Your task to perform on an android device: Search for vegetarian restaurants on Maps Image 0: 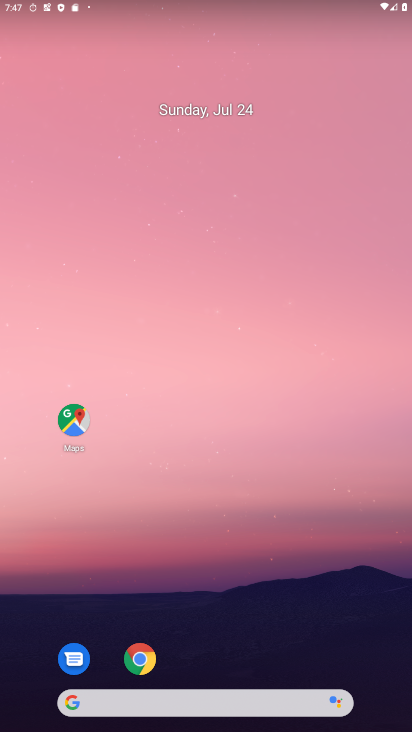
Step 0: drag from (315, 663) to (122, 92)
Your task to perform on an android device: Search for vegetarian restaurants on Maps Image 1: 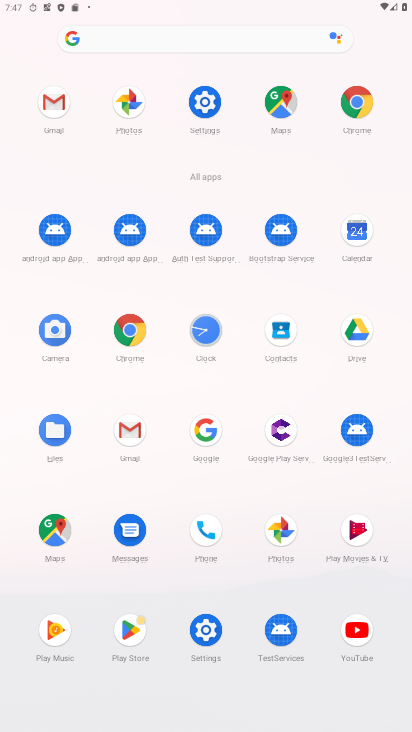
Step 1: click (272, 94)
Your task to perform on an android device: Search for vegetarian restaurants on Maps Image 2: 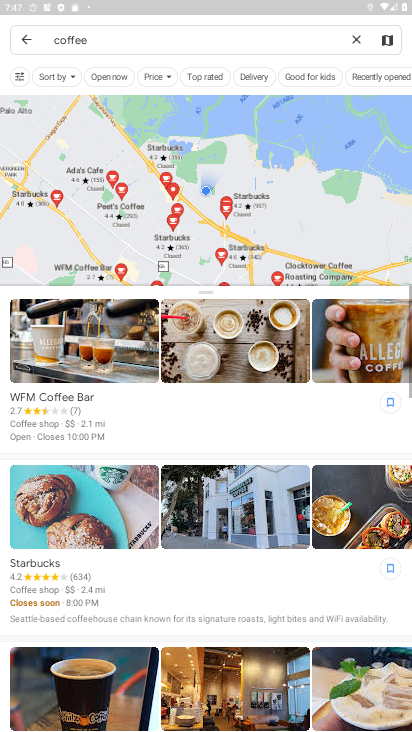
Step 2: click (354, 35)
Your task to perform on an android device: Search for vegetarian restaurants on Maps Image 3: 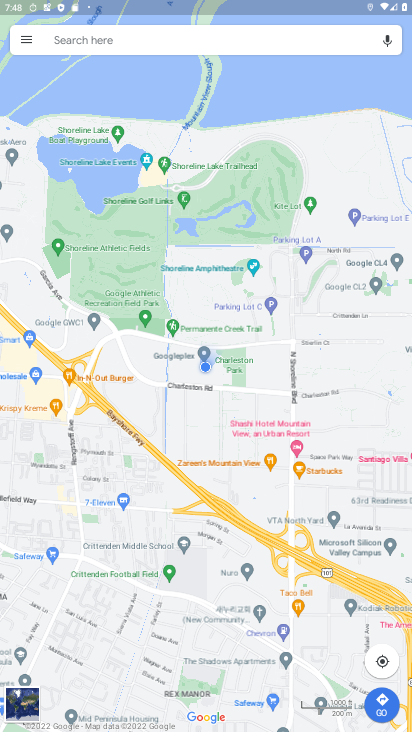
Step 3: click (288, 42)
Your task to perform on an android device: Search for vegetarian restaurants on Maps Image 4: 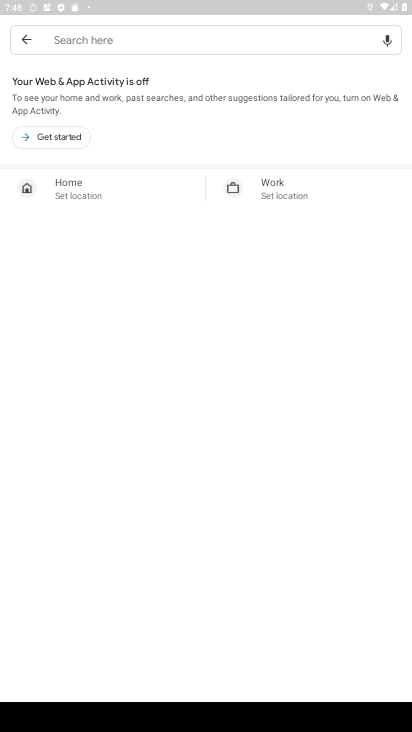
Step 4: type "vegetarian restaurants"
Your task to perform on an android device: Search for vegetarian restaurants on Maps Image 5: 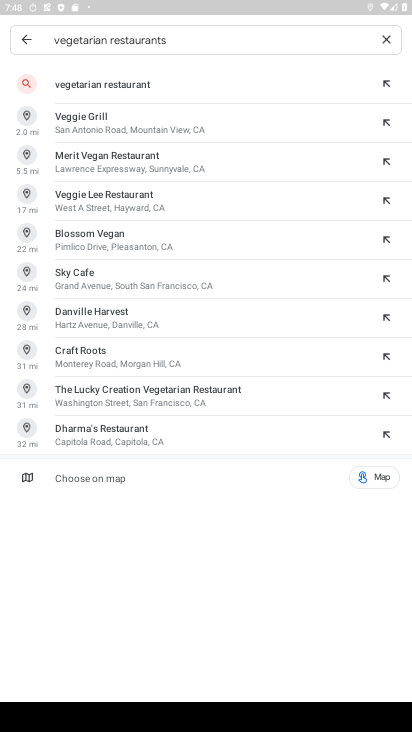
Step 5: press enter
Your task to perform on an android device: Search for vegetarian restaurants on Maps Image 6: 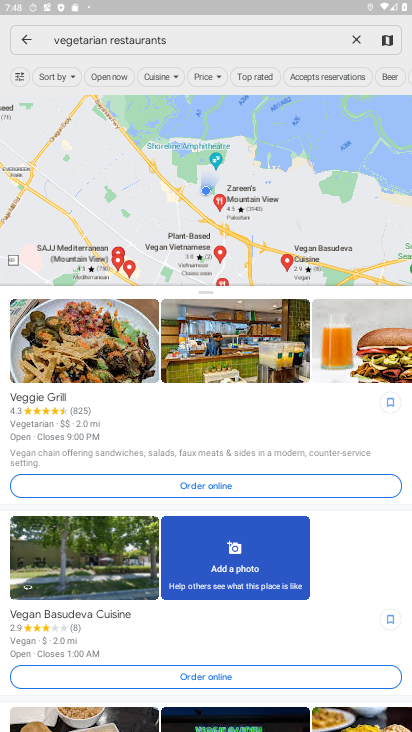
Step 6: task complete